Your task to perform on an android device: turn on showing notifications on the lock screen Image 0: 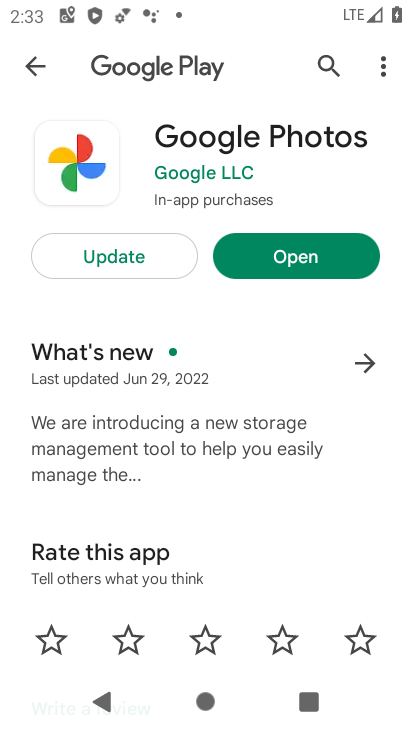
Step 0: press home button
Your task to perform on an android device: turn on showing notifications on the lock screen Image 1: 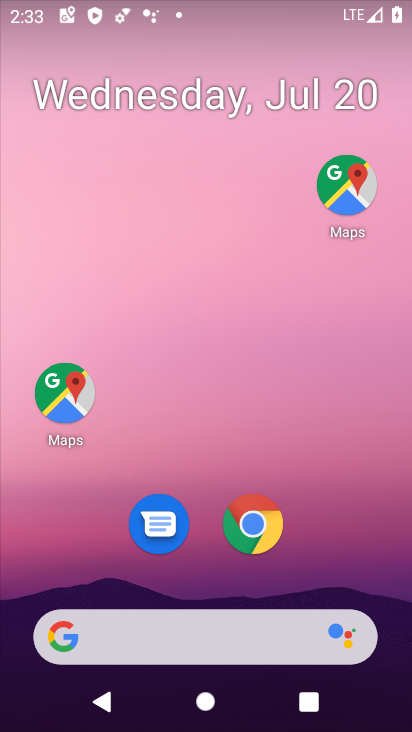
Step 1: drag from (321, 554) to (302, 84)
Your task to perform on an android device: turn on showing notifications on the lock screen Image 2: 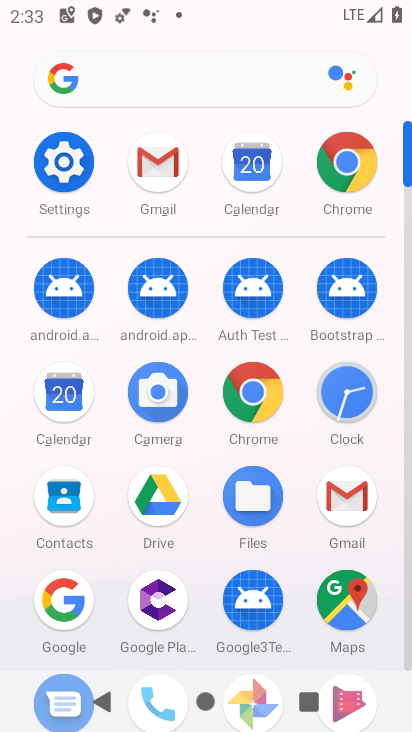
Step 2: click (70, 165)
Your task to perform on an android device: turn on showing notifications on the lock screen Image 3: 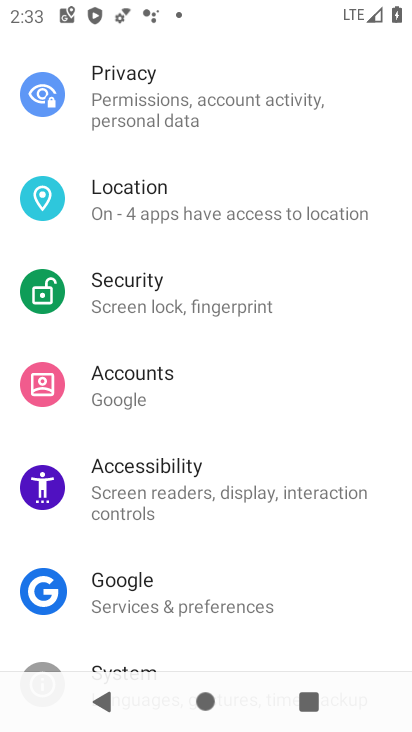
Step 3: drag from (262, 162) to (218, 617)
Your task to perform on an android device: turn on showing notifications on the lock screen Image 4: 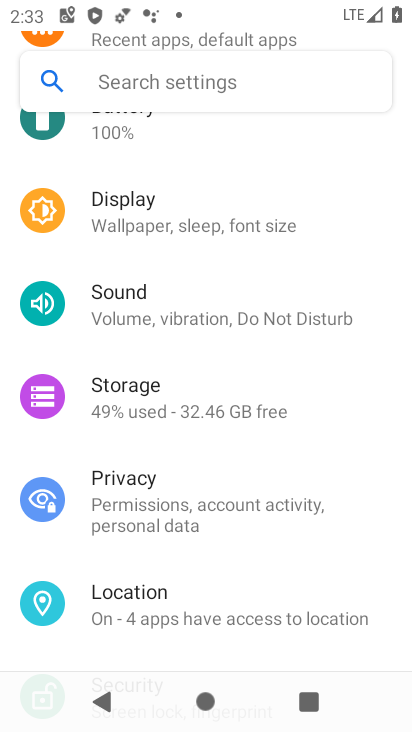
Step 4: drag from (228, 176) to (219, 620)
Your task to perform on an android device: turn on showing notifications on the lock screen Image 5: 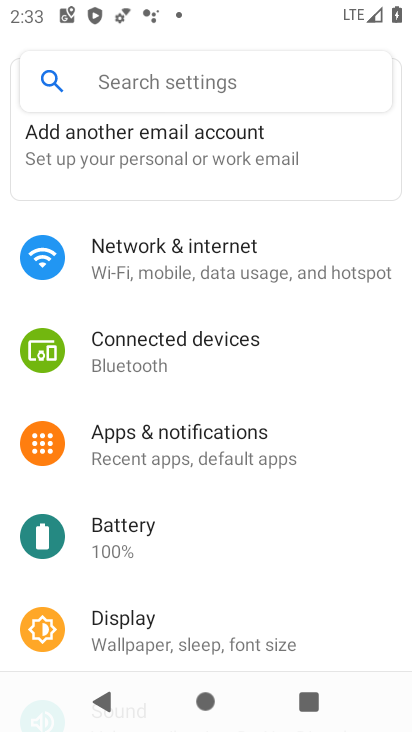
Step 5: click (205, 440)
Your task to perform on an android device: turn on showing notifications on the lock screen Image 6: 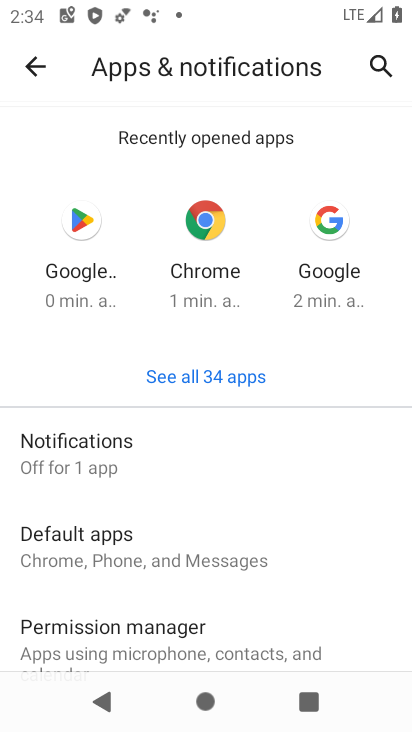
Step 6: click (102, 463)
Your task to perform on an android device: turn on showing notifications on the lock screen Image 7: 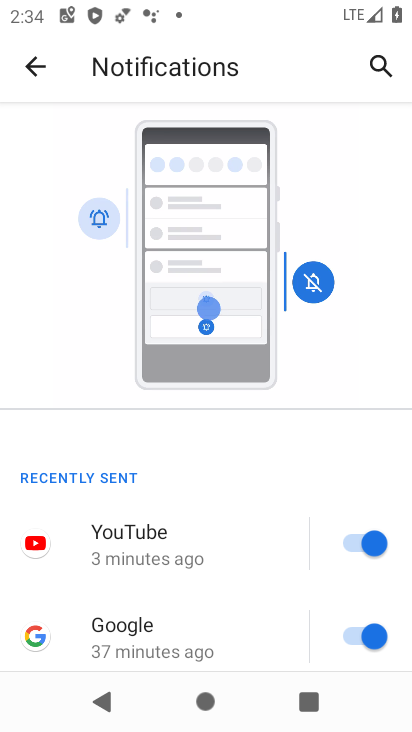
Step 7: drag from (218, 584) to (243, 190)
Your task to perform on an android device: turn on showing notifications on the lock screen Image 8: 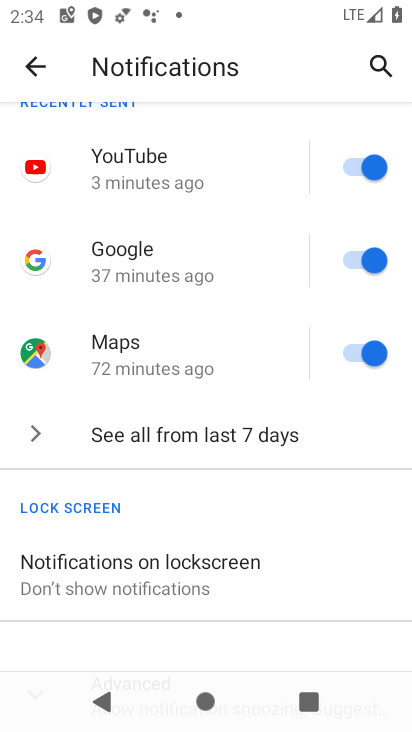
Step 8: click (178, 581)
Your task to perform on an android device: turn on showing notifications on the lock screen Image 9: 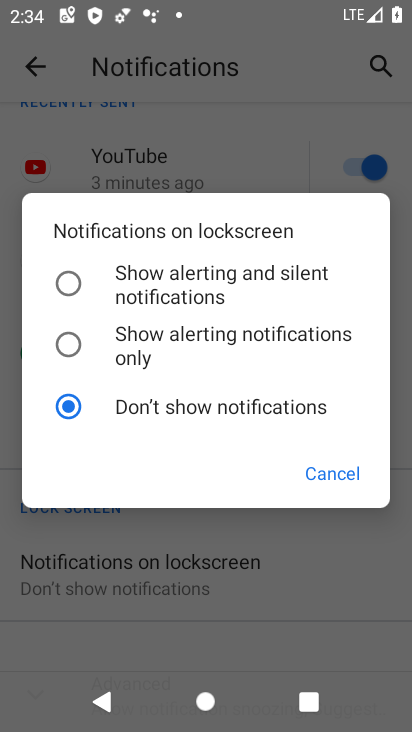
Step 9: click (77, 272)
Your task to perform on an android device: turn on showing notifications on the lock screen Image 10: 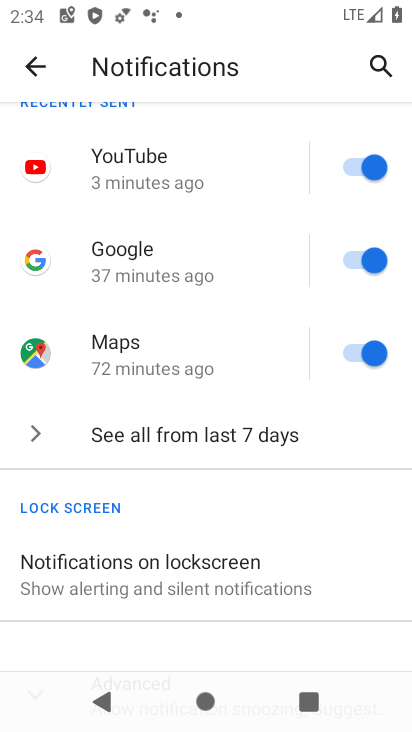
Step 10: task complete